Your task to perform on an android device: Open wifi settings Image 0: 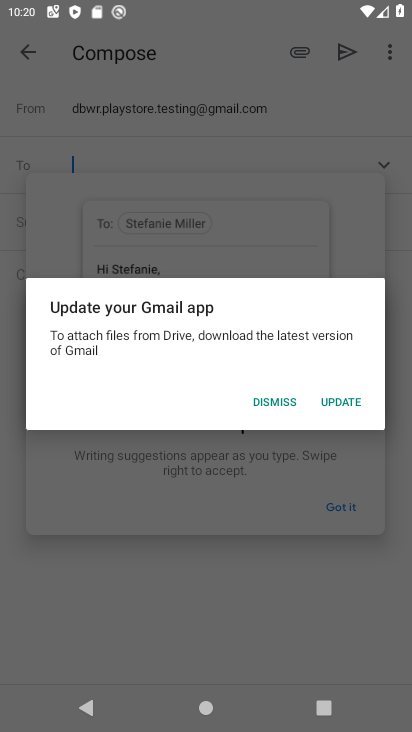
Step 0: press home button
Your task to perform on an android device: Open wifi settings Image 1: 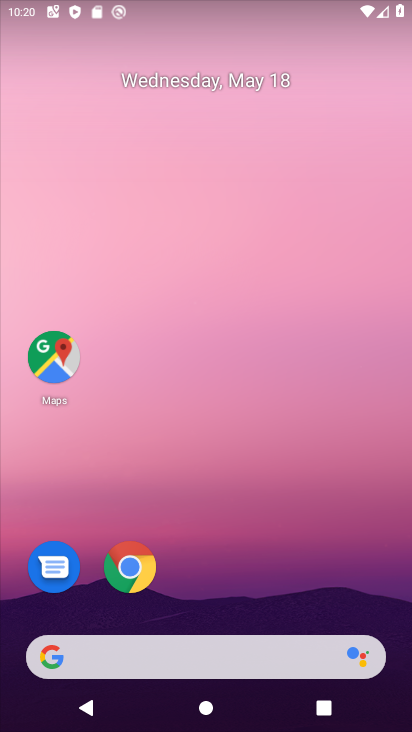
Step 1: drag from (254, 658) to (344, 106)
Your task to perform on an android device: Open wifi settings Image 2: 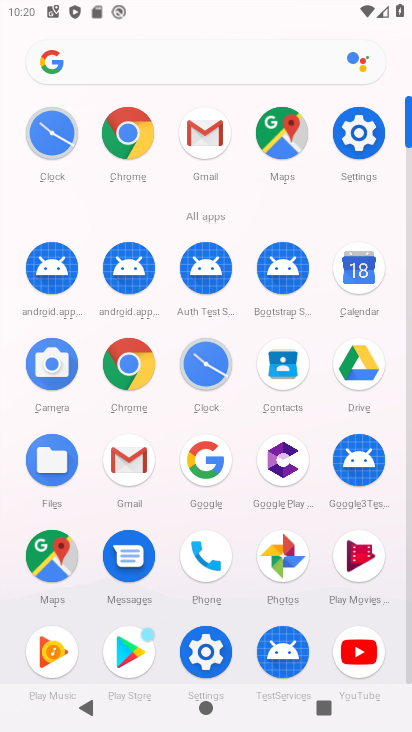
Step 2: click (207, 648)
Your task to perform on an android device: Open wifi settings Image 3: 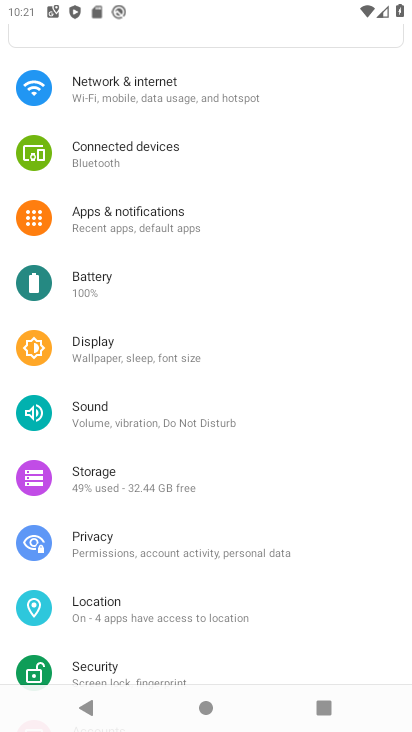
Step 3: click (101, 96)
Your task to perform on an android device: Open wifi settings Image 4: 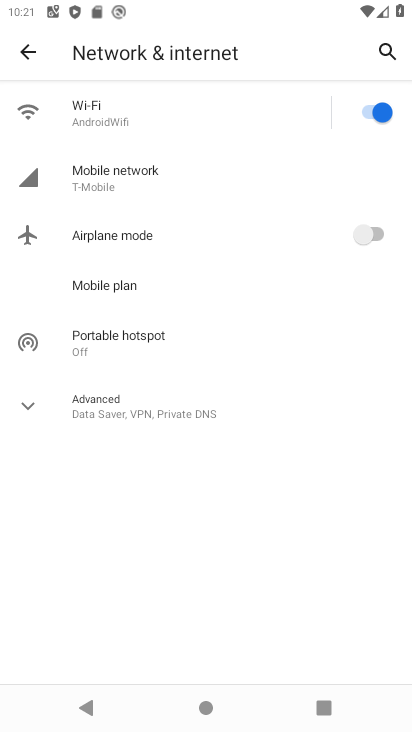
Step 4: click (158, 113)
Your task to perform on an android device: Open wifi settings Image 5: 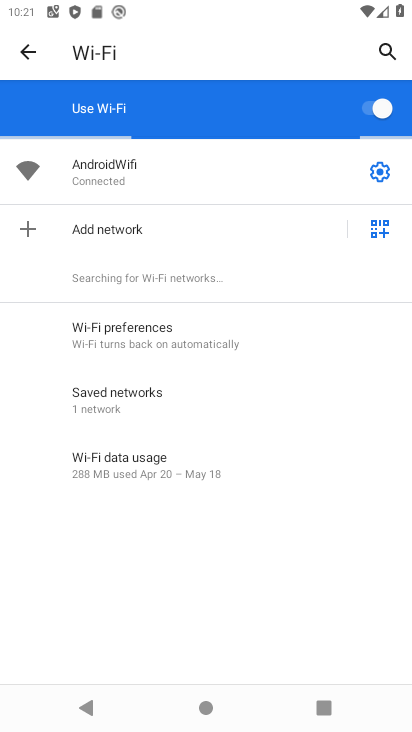
Step 5: task complete